Your task to perform on an android device: turn off location Image 0: 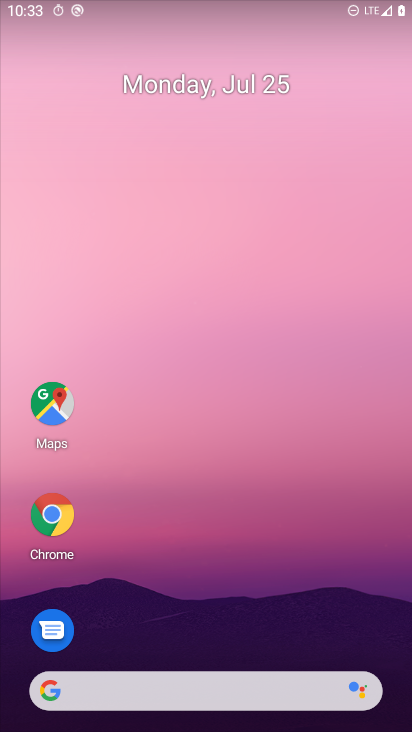
Step 0: drag from (33, 714) to (194, 66)
Your task to perform on an android device: turn off location Image 1: 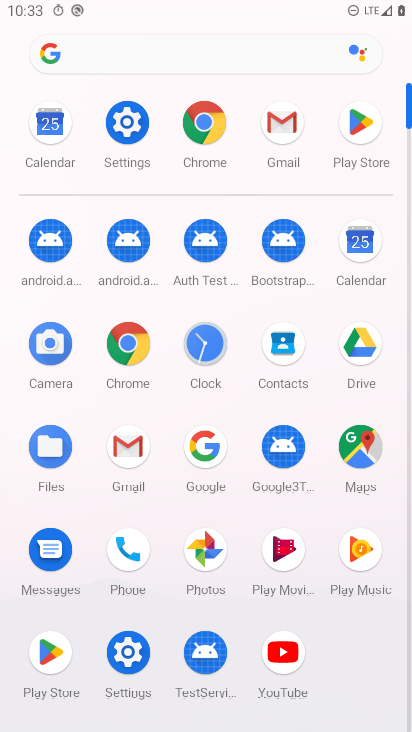
Step 1: click (130, 656)
Your task to perform on an android device: turn off location Image 2: 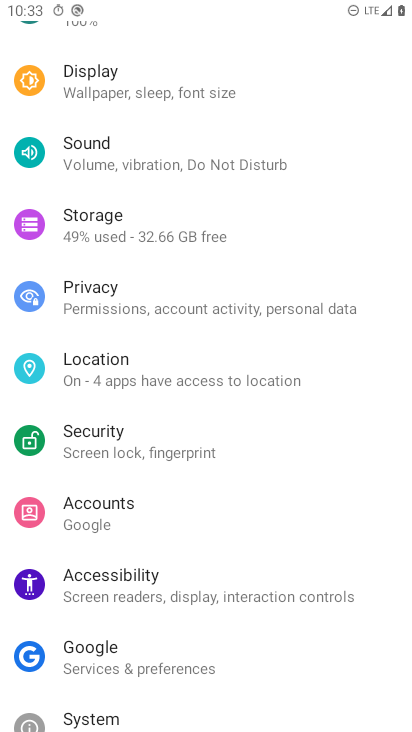
Step 2: click (98, 365)
Your task to perform on an android device: turn off location Image 3: 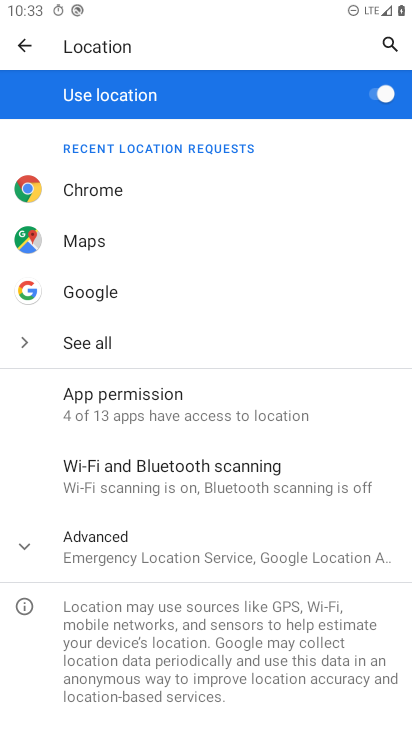
Step 3: click (394, 88)
Your task to perform on an android device: turn off location Image 4: 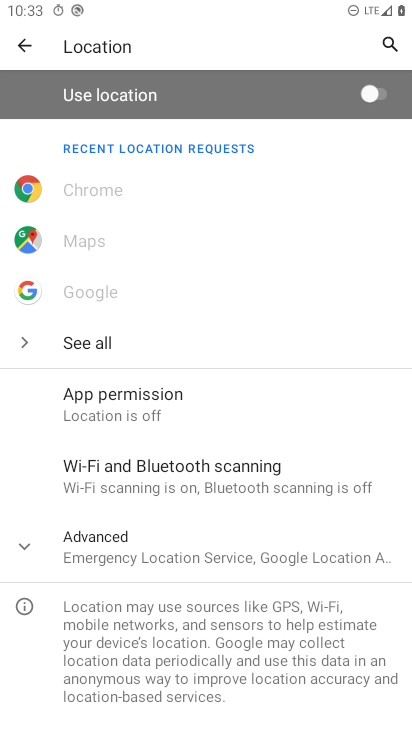
Step 4: task complete